Your task to perform on an android device: Go to battery settings Image 0: 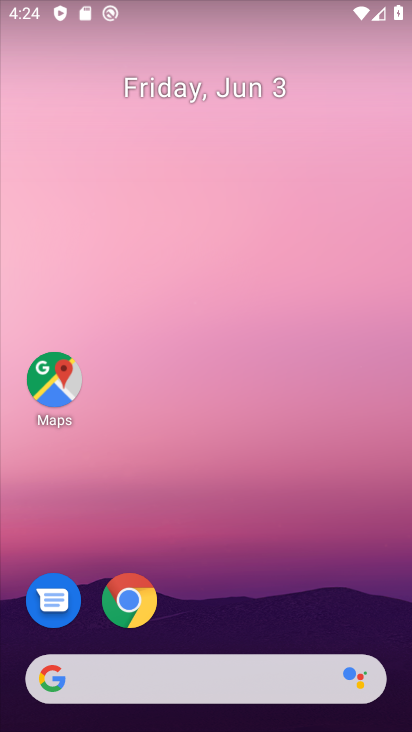
Step 0: drag from (208, 648) to (298, 116)
Your task to perform on an android device: Go to battery settings Image 1: 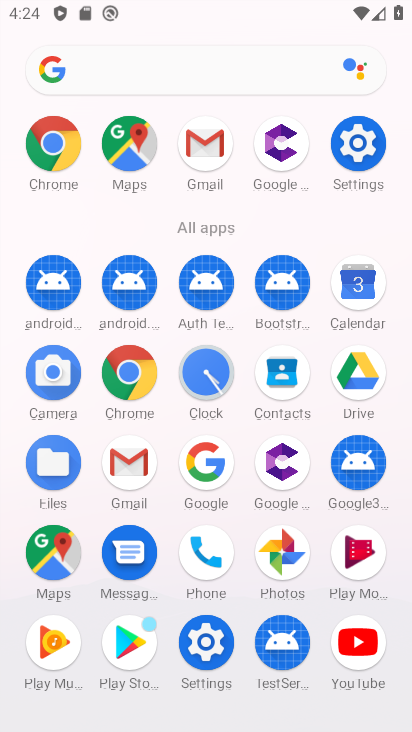
Step 1: click (352, 165)
Your task to perform on an android device: Go to battery settings Image 2: 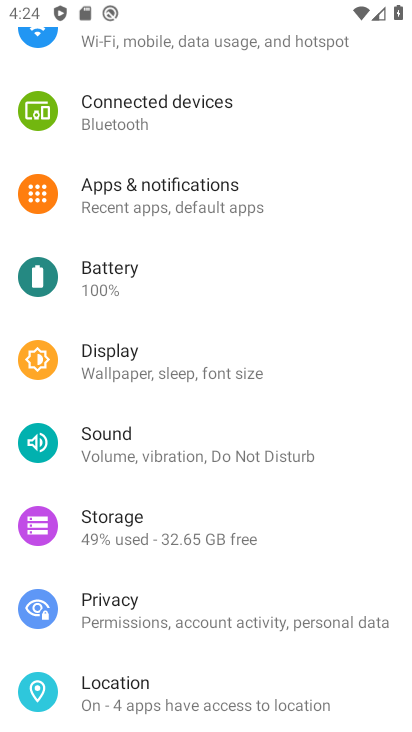
Step 2: click (119, 277)
Your task to perform on an android device: Go to battery settings Image 3: 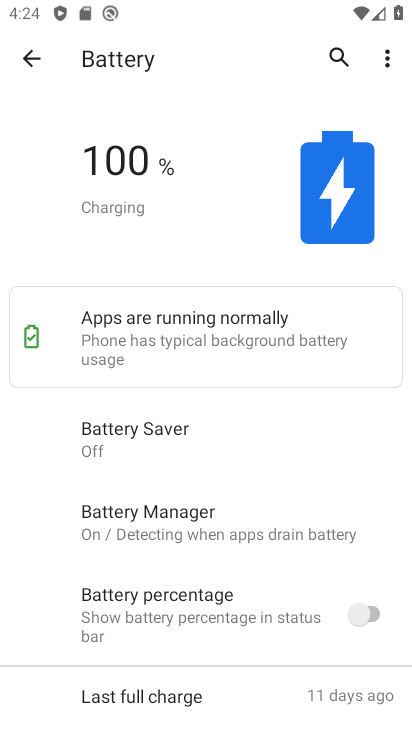
Step 3: task complete